Your task to perform on an android device: toggle improve location accuracy Image 0: 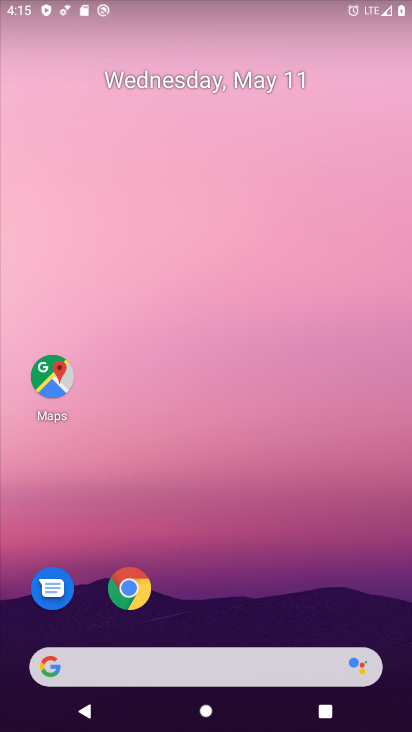
Step 0: drag from (278, 570) to (243, 133)
Your task to perform on an android device: toggle improve location accuracy Image 1: 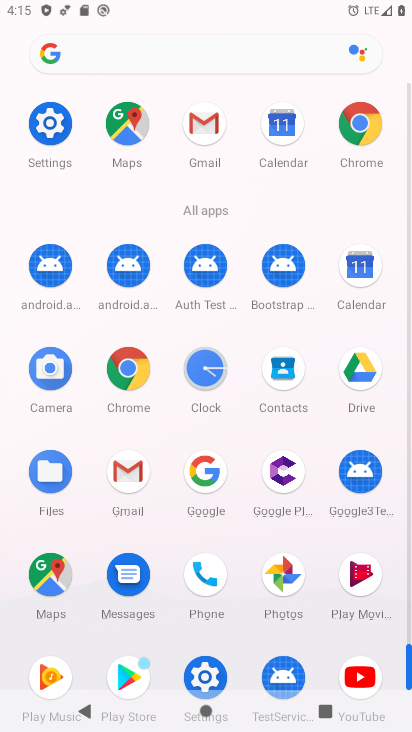
Step 1: click (202, 676)
Your task to perform on an android device: toggle improve location accuracy Image 2: 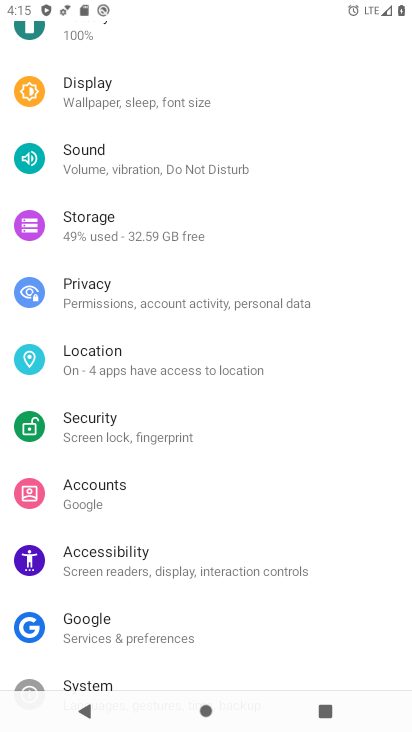
Step 2: drag from (250, 127) to (210, 541)
Your task to perform on an android device: toggle improve location accuracy Image 3: 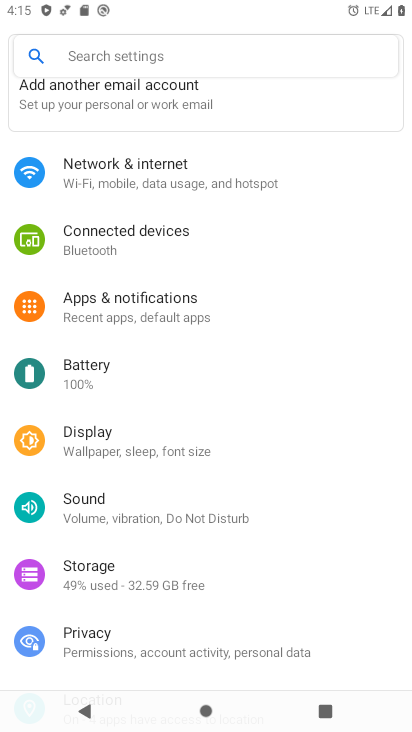
Step 3: drag from (88, 581) to (129, 178)
Your task to perform on an android device: toggle improve location accuracy Image 4: 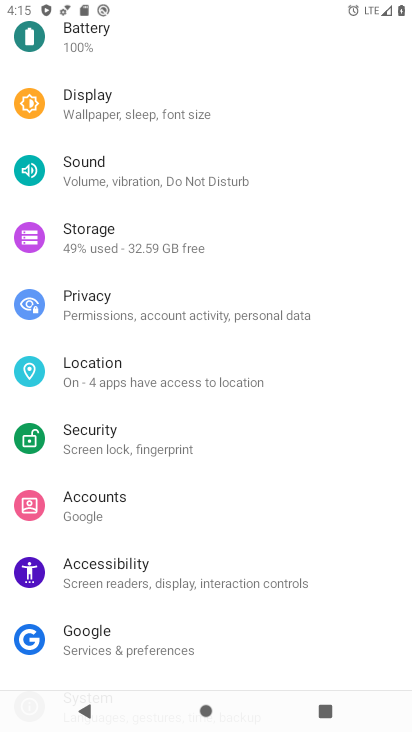
Step 4: click (112, 395)
Your task to perform on an android device: toggle improve location accuracy Image 5: 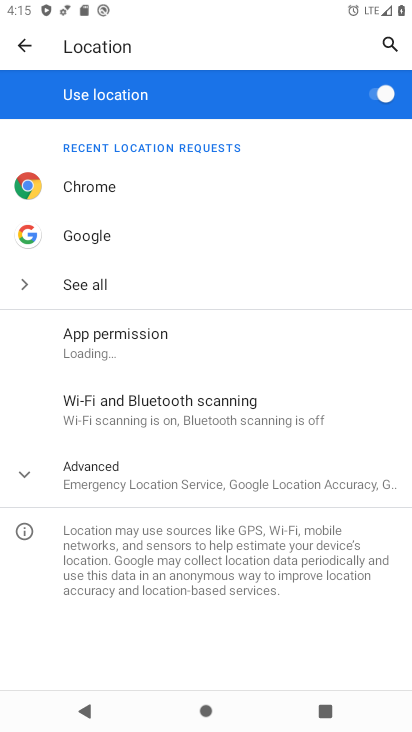
Step 5: click (115, 483)
Your task to perform on an android device: toggle improve location accuracy Image 6: 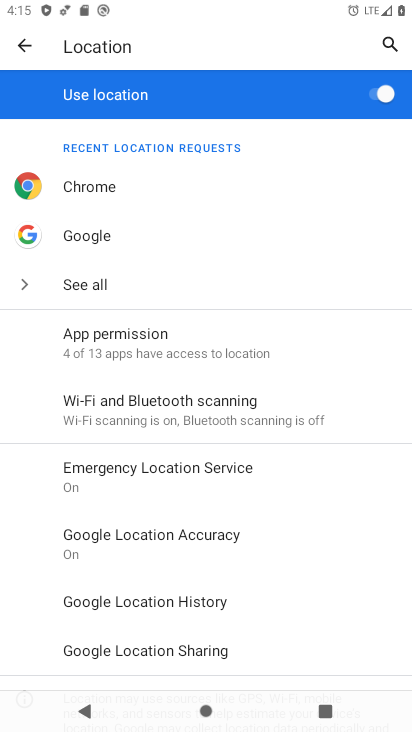
Step 6: drag from (81, 577) to (171, 299)
Your task to perform on an android device: toggle improve location accuracy Image 7: 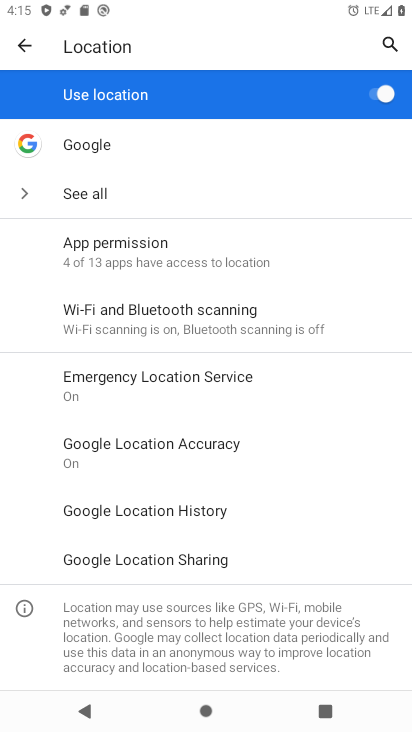
Step 7: click (142, 452)
Your task to perform on an android device: toggle improve location accuracy Image 8: 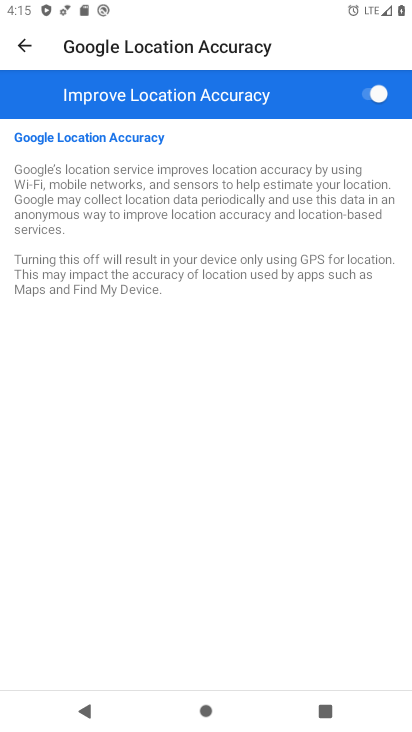
Step 8: click (387, 94)
Your task to perform on an android device: toggle improve location accuracy Image 9: 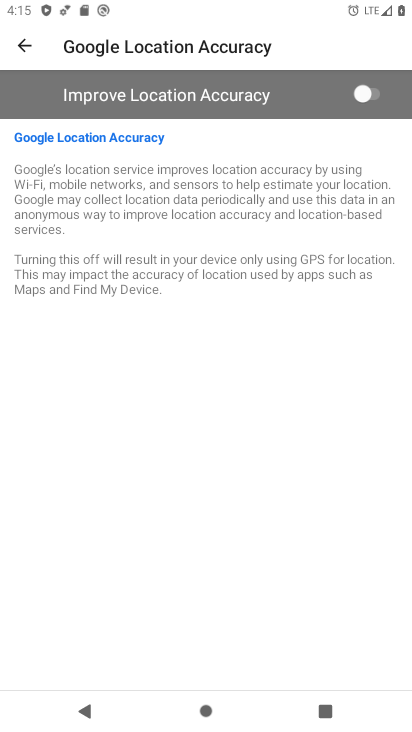
Step 9: task complete